Your task to perform on an android device: Go to Google maps Image 0: 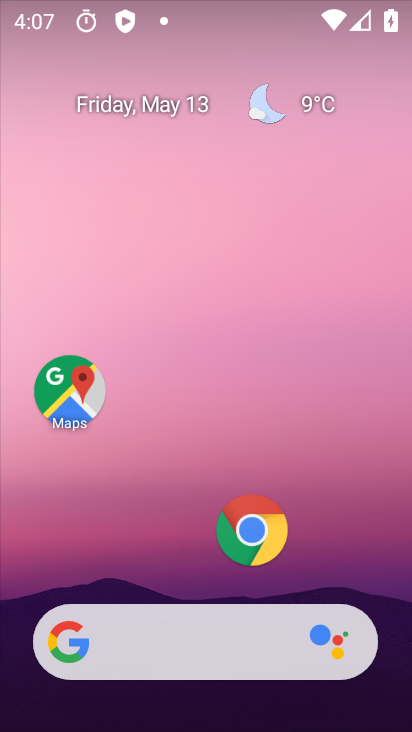
Step 0: press home button
Your task to perform on an android device: Go to Google maps Image 1: 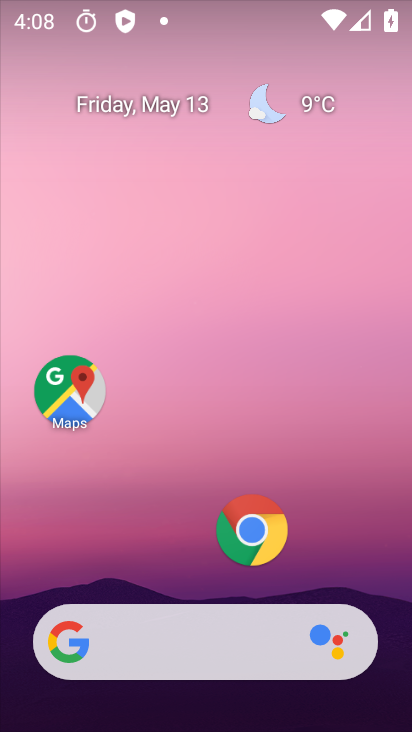
Step 1: click (70, 385)
Your task to perform on an android device: Go to Google maps Image 2: 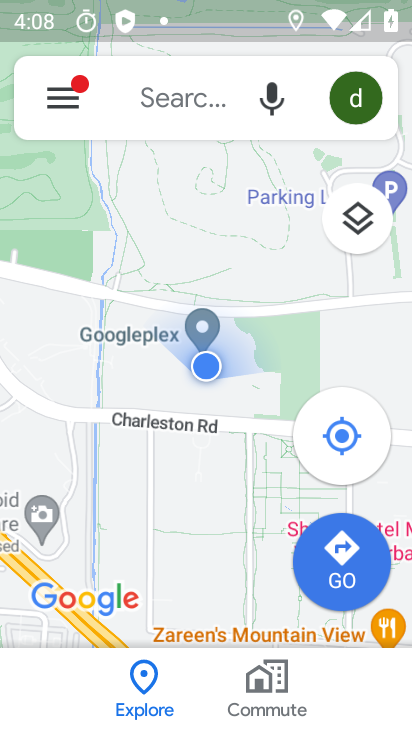
Step 2: click (57, 91)
Your task to perform on an android device: Go to Google maps Image 3: 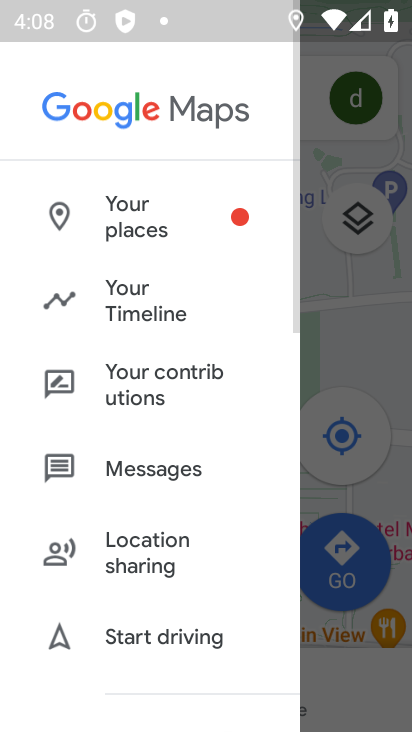
Step 3: task complete